Your task to perform on an android device: Open location settings Image 0: 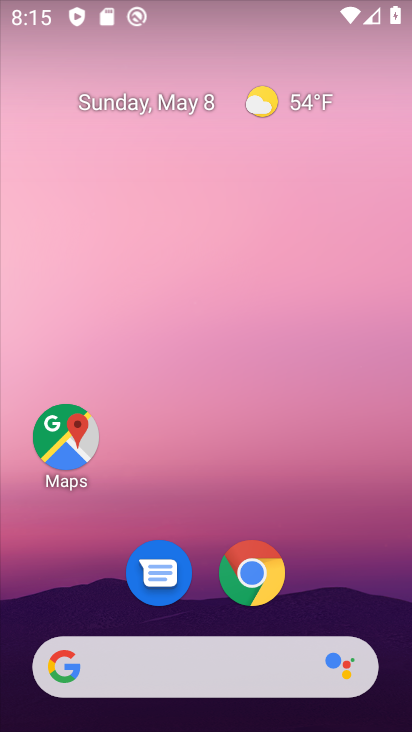
Step 0: drag from (193, 660) to (145, 169)
Your task to perform on an android device: Open location settings Image 1: 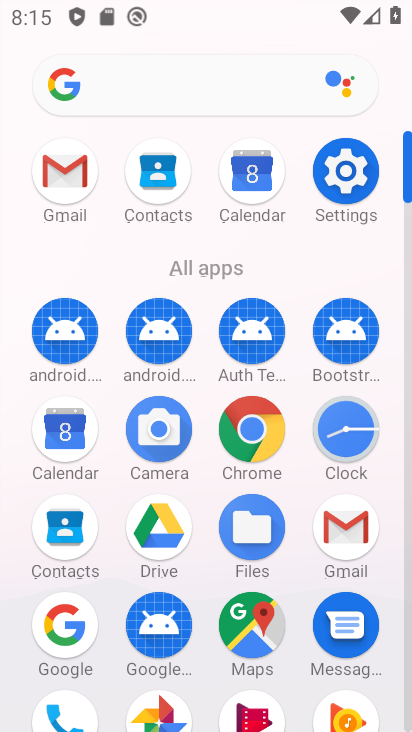
Step 1: click (336, 174)
Your task to perform on an android device: Open location settings Image 2: 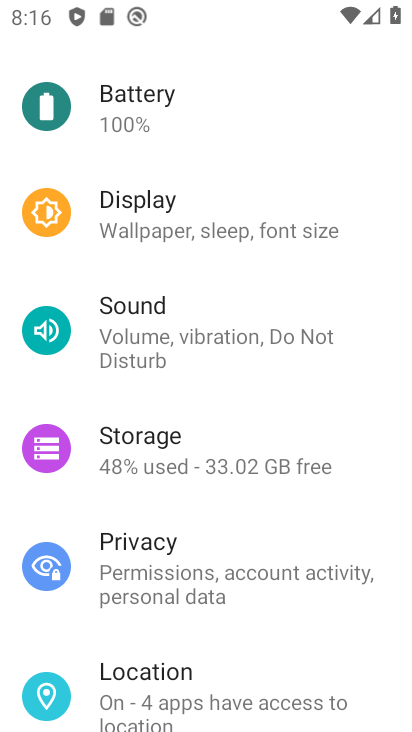
Step 2: click (154, 683)
Your task to perform on an android device: Open location settings Image 3: 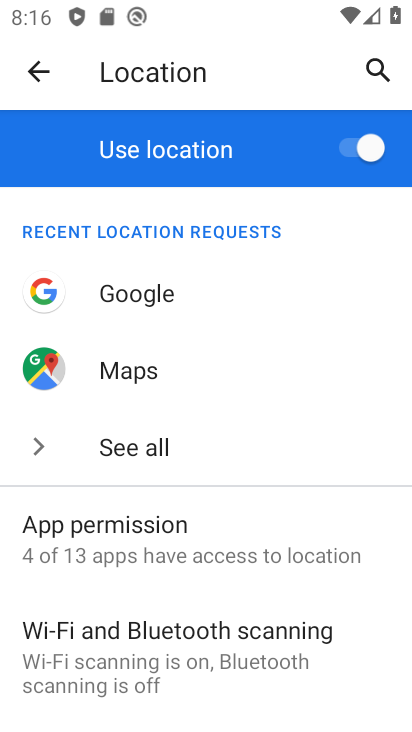
Step 3: task complete